Your task to perform on an android device: Open Google Image 0: 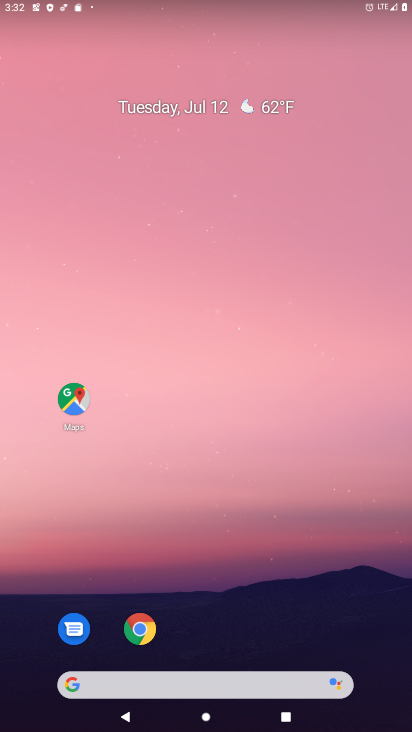
Step 0: drag from (196, 659) to (138, 91)
Your task to perform on an android device: Open Google Image 1: 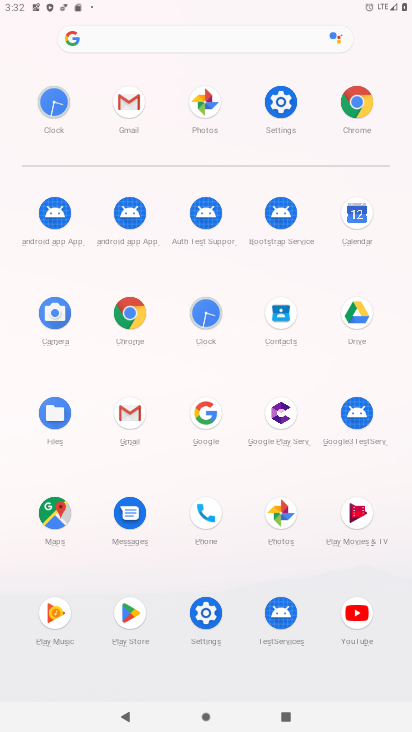
Step 1: click (203, 414)
Your task to perform on an android device: Open Google Image 2: 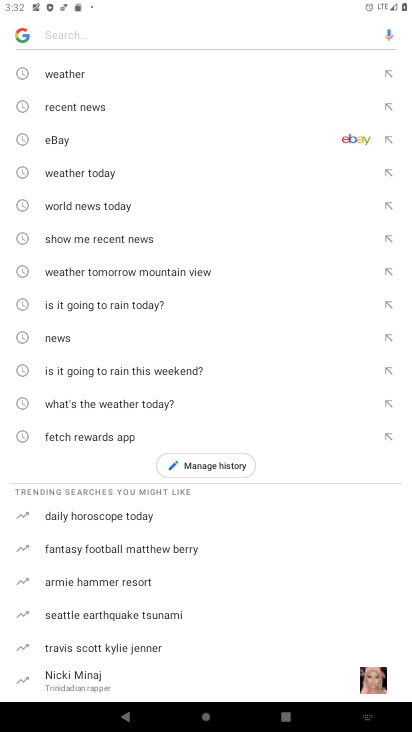
Step 2: task complete